Your task to perform on an android device: turn on showing notifications on the lock screen Image 0: 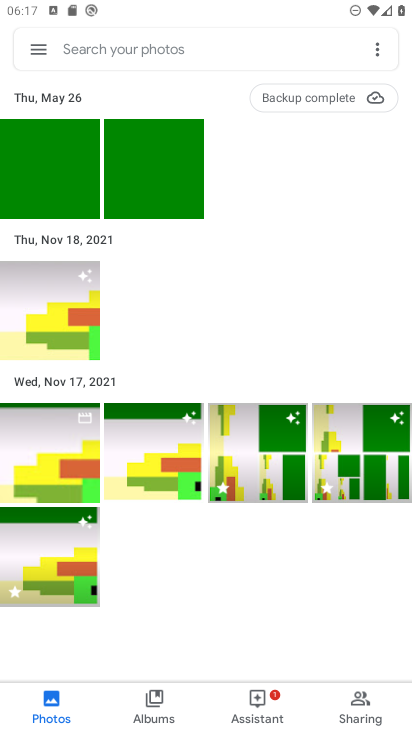
Step 0: press home button
Your task to perform on an android device: turn on showing notifications on the lock screen Image 1: 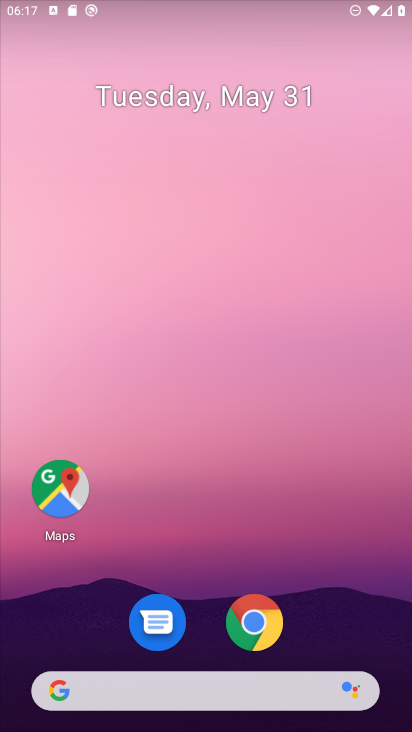
Step 1: drag from (299, 550) to (329, 88)
Your task to perform on an android device: turn on showing notifications on the lock screen Image 2: 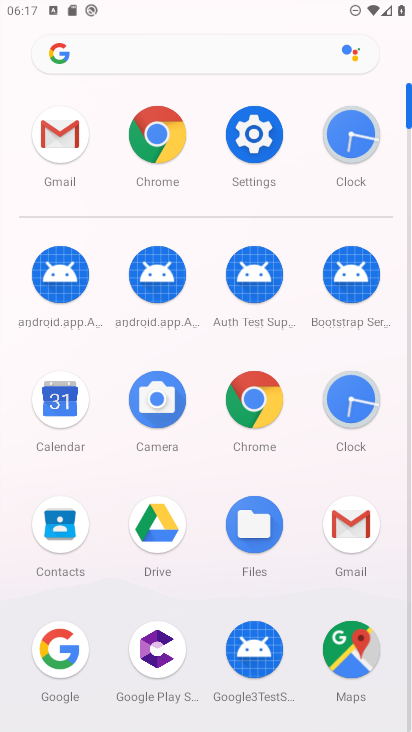
Step 2: click (253, 153)
Your task to perform on an android device: turn on showing notifications on the lock screen Image 3: 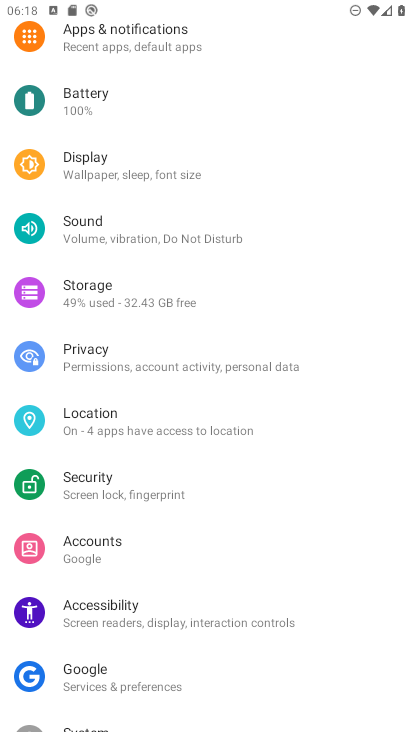
Step 3: click (134, 30)
Your task to perform on an android device: turn on showing notifications on the lock screen Image 4: 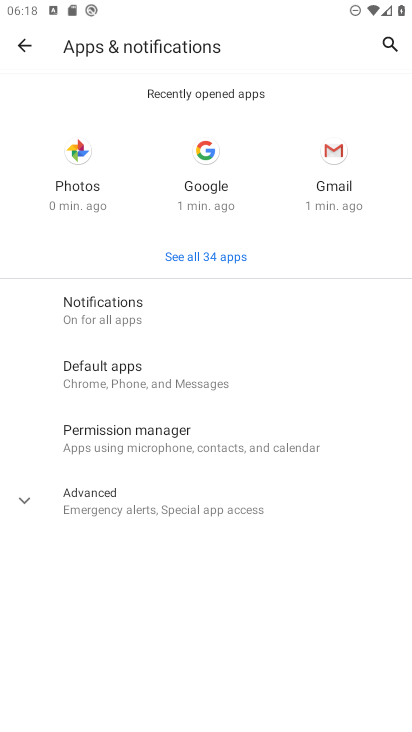
Step 4: click (147, 307)
Your task to perform on an android device: turn on showing notifications on the lock screen Image 5: 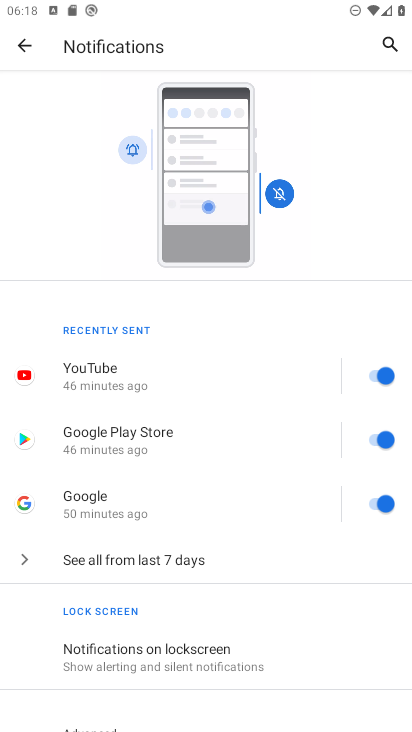
Step 5: click (164, 654)
Your task to perform on an android device: turn on showing notifications on the lock screen Image 6: 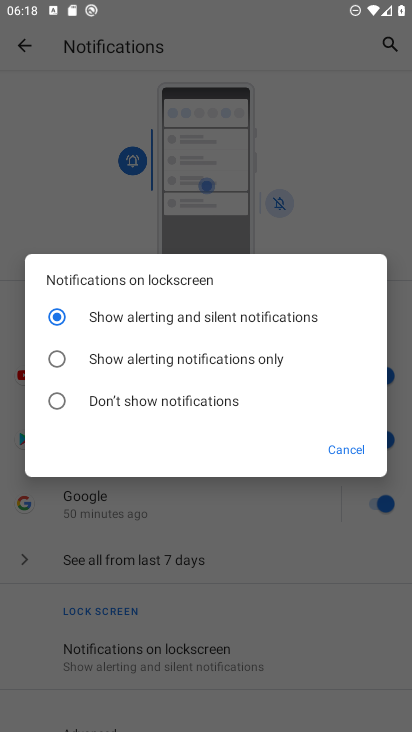
Step 6: task complete